Your task to perform on an android device: turn notification dots on Image 0: 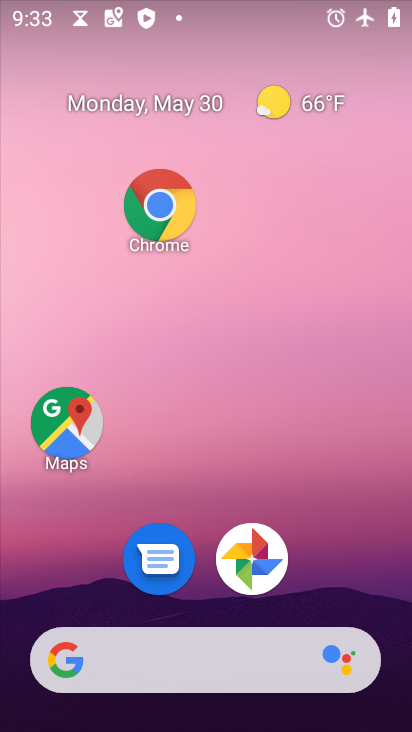
Step 0: drag from (266, 703) to (190, 20)
Your task to perform on an android device: turn notification dots on Image 1: 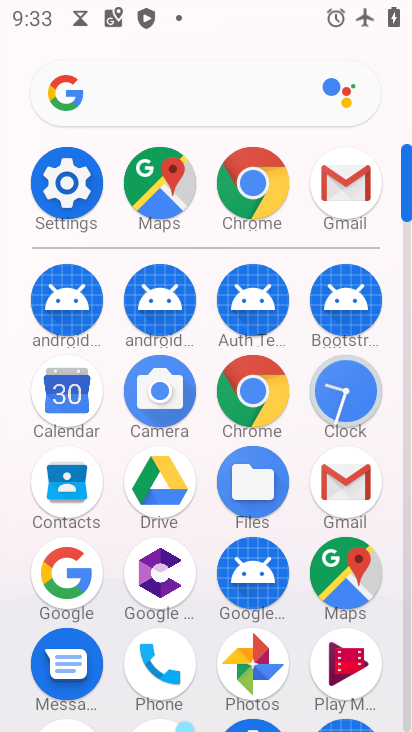
Step 1: click (63, 182)
Your task to perform on an android device: turn notification dots on Image 2: 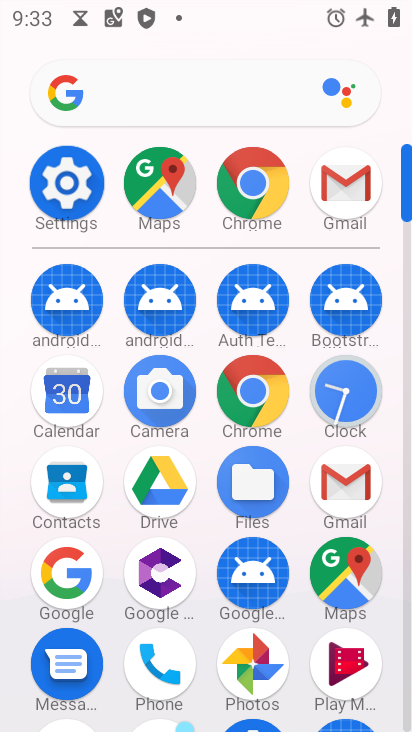
Step 2: click (63, 182)
Your task to perform on an android device: turn notification dots on Image 3: 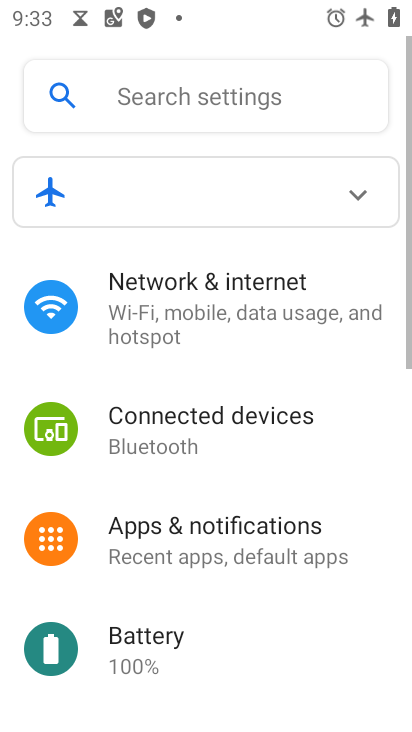
Step 3: click (64, 182)
Your task to perform on an android device: turn notification dots on Image 4: 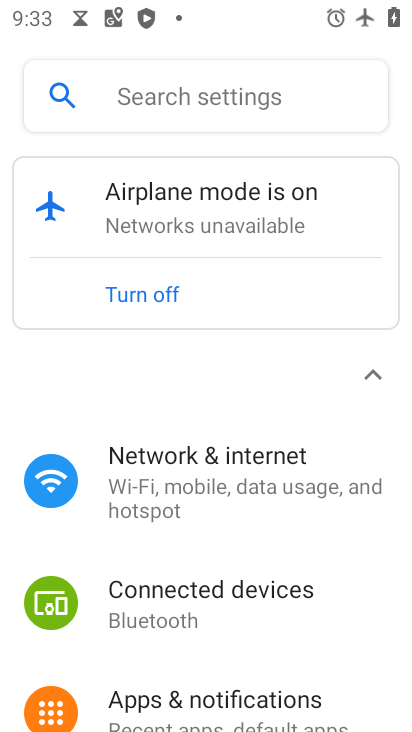
Step 4: drag from (231, 583) to (221, 239)
Your task to perform on an android device: turn notification dots on Image 5: 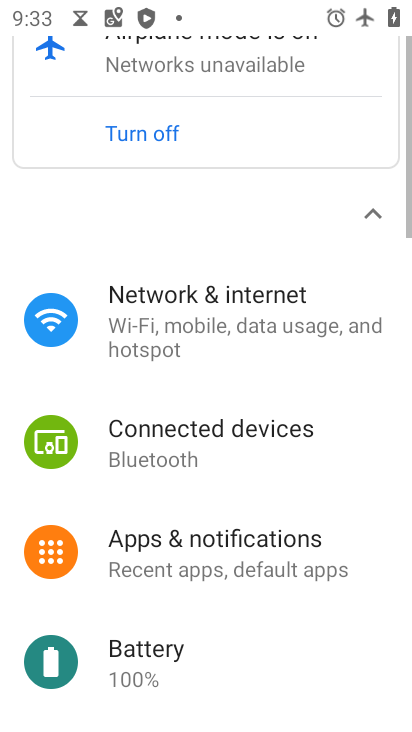
Step 5: drag from (255, 474) to (225, 296)
Your task to perform on an android device: turn notification dots on Image 6: 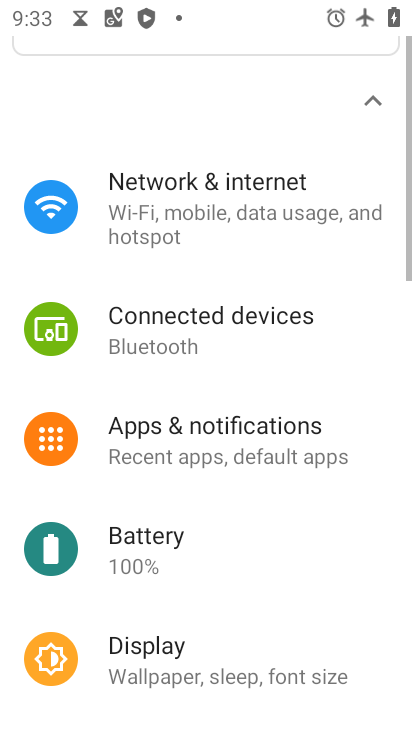
Step 6: drag from (284, 547) to (257, 269)
Your task to perform on an android device: turn notification dots on Image 7: 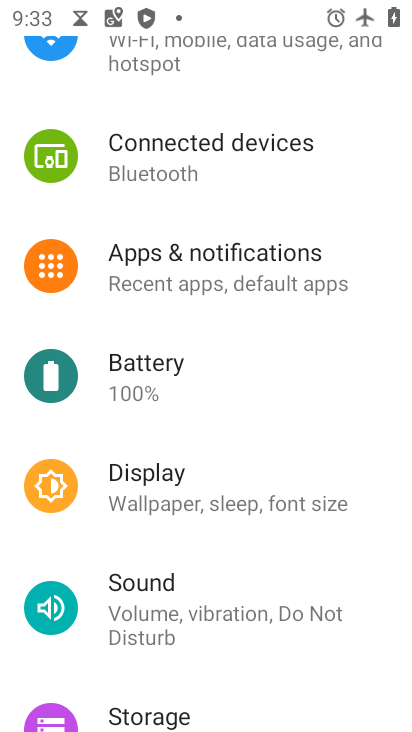
Step 7: click (193, 271)
Your task to perform on an android device: turn notification dots on Image 8: 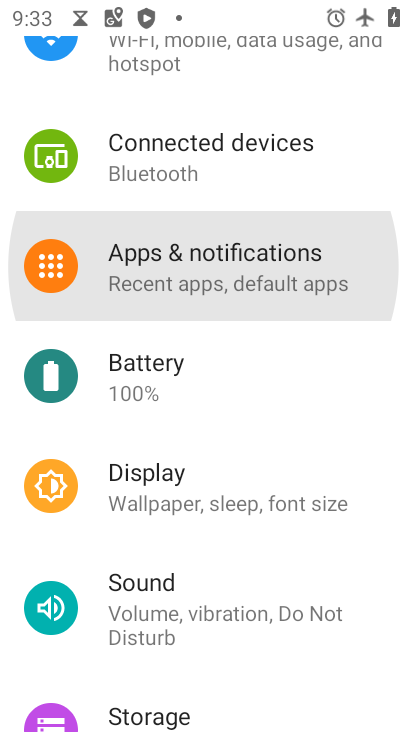
Step 8: click (193, 271)
Your task to perform on an android device: turn notification dots on Image 9: 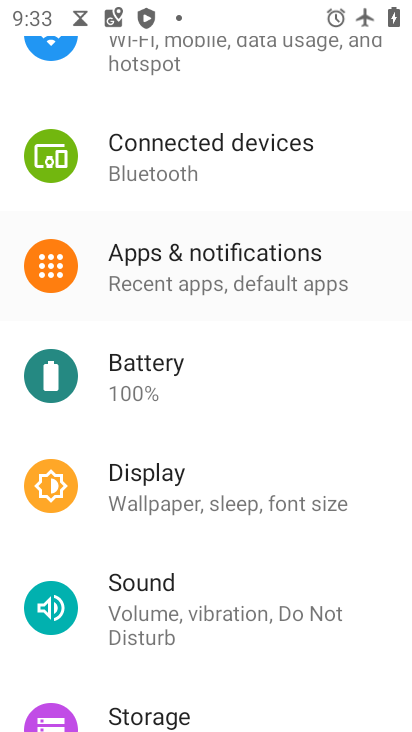
Step 9: click (193, 271)
Your task to perform on an android device: turn notification dots on Image 10: 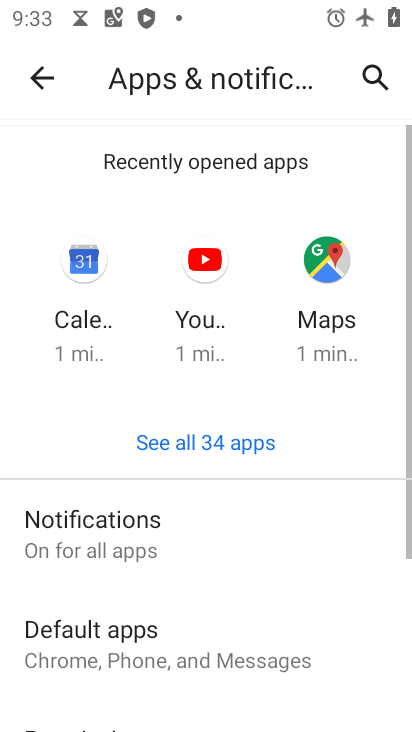
Step 10: drag from (204, 563) to (230, 145)
Your task to perform on an android device: turn notification dots on Image 11: 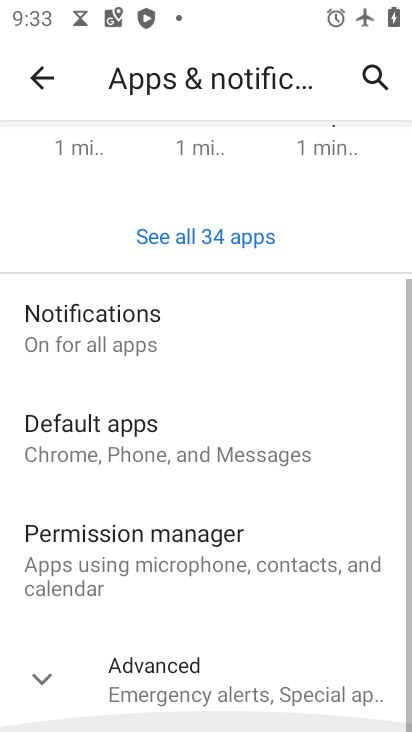
Step 11: drag from (236, 412) to (236, 136)
Your task to perform on an android device: turn notification dots on Image 12: 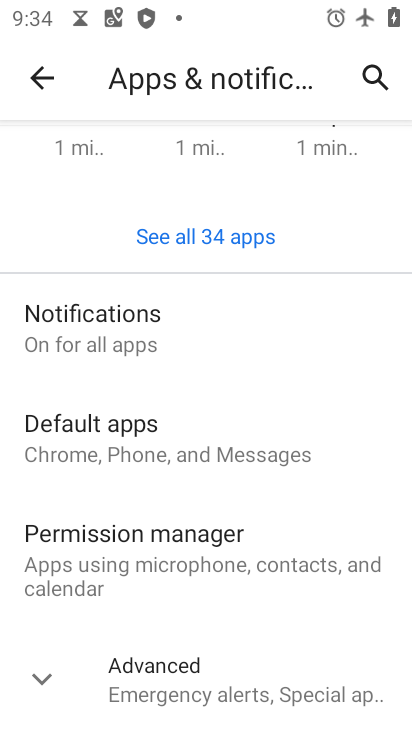
Step 12: click (96, 327)
Your task to perform on an android device: turn notification dots on Image 13: 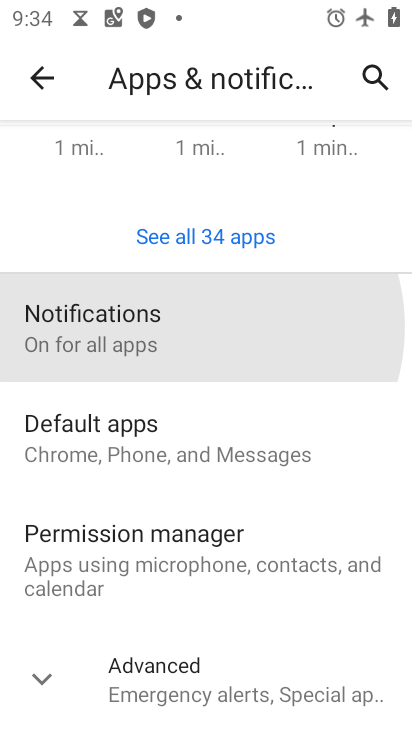
Step 13: click (96, 327)
Your task to perform on an android device: turn notification dots on Image 14: 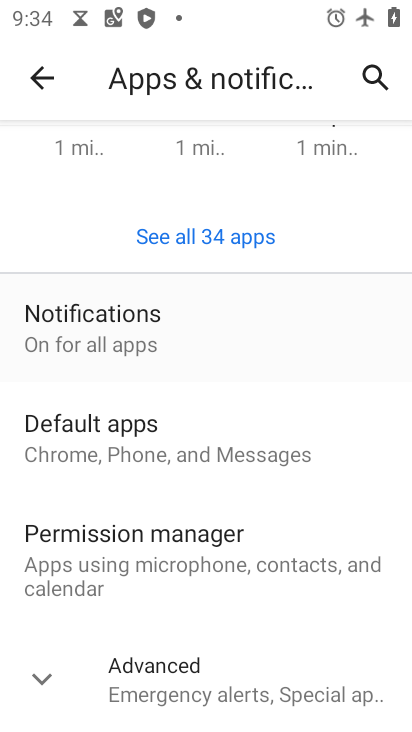
Step 14: click (96, 327)
Your task to perform on an android device: turn notification dots on Image 15: 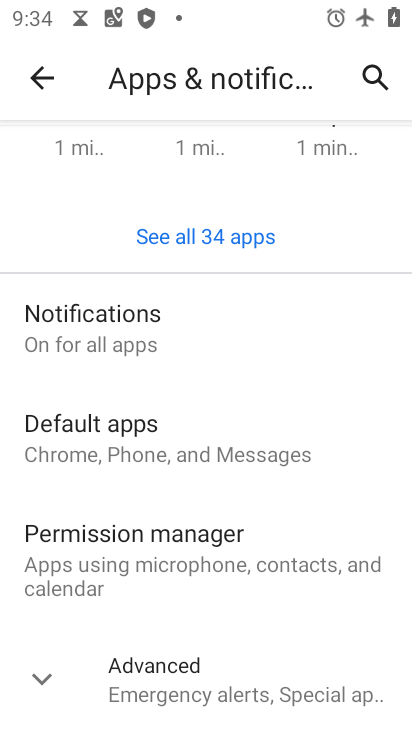
Step 15: click (96, 327)
Your task to perform on an android device: turn notification dots on Image 16: 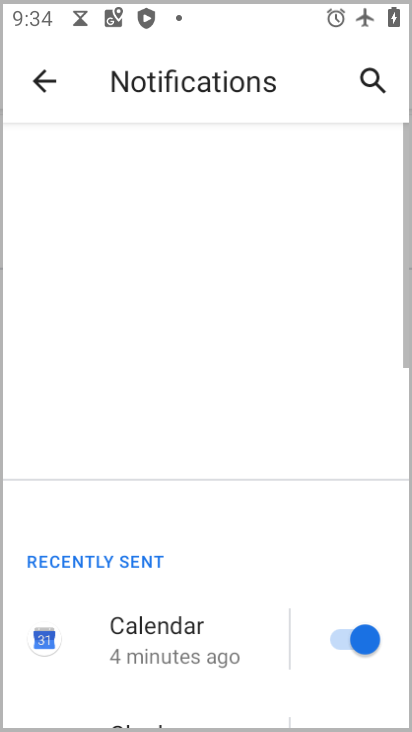
Step 16: click (103, 327)
Your task to perform on an android device: turn notification dots on Image 17: 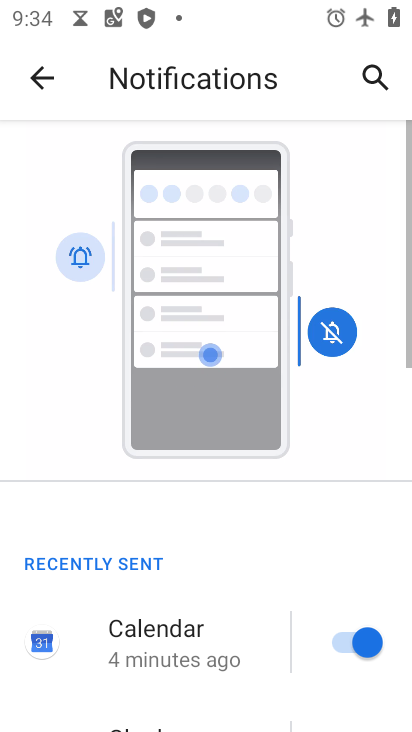
Step 17: drag from (219, 536) to (193, 109)
Your task to perform on an android device: turn notification dots on Image 18: 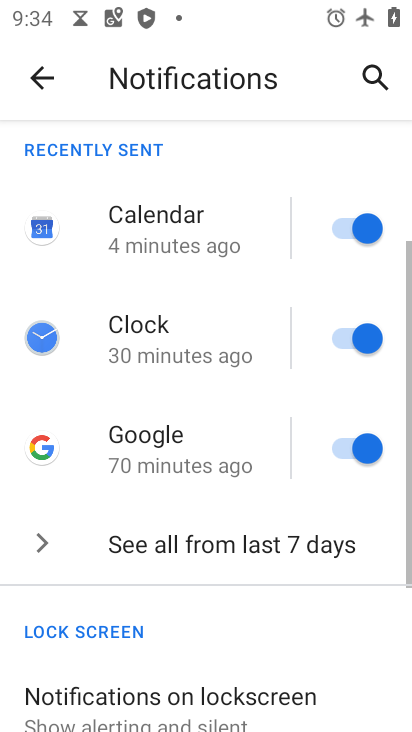
Step 18: drag from (217, 444) to (187, 80)
Your task to perform on an android device: turn notification dots on Image 19: 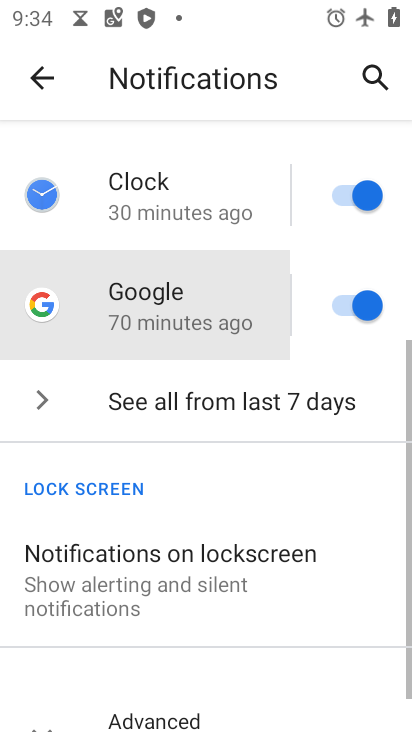
Step 19: drag from (231, 499) to (186, 116)
Your task to perform on an android device: turn notification dots on Image 20: 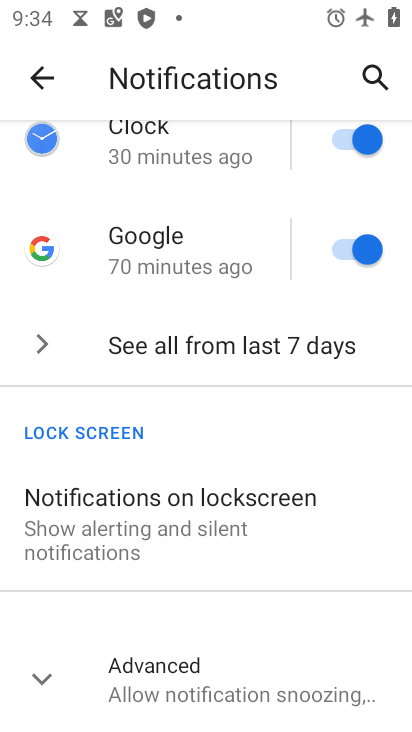
Step 20: click (156, 685)
Your task to perform on an android device: turn notification dots on Image 21: 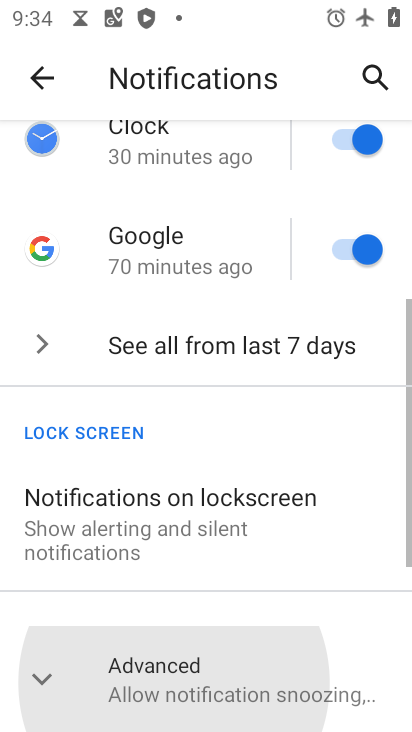
Step 21: click (156, 685)
Your task to perform on an android device: turn notification dots on Image 22: 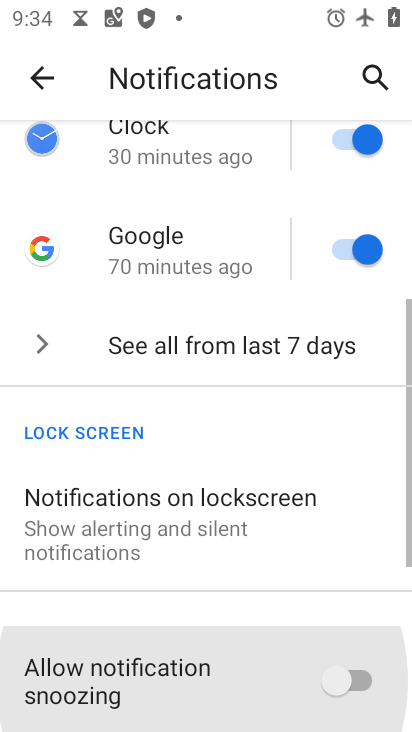
Step 22: click (155, 685)
Your task to perform on an android device: turn notification dots on Image 23: 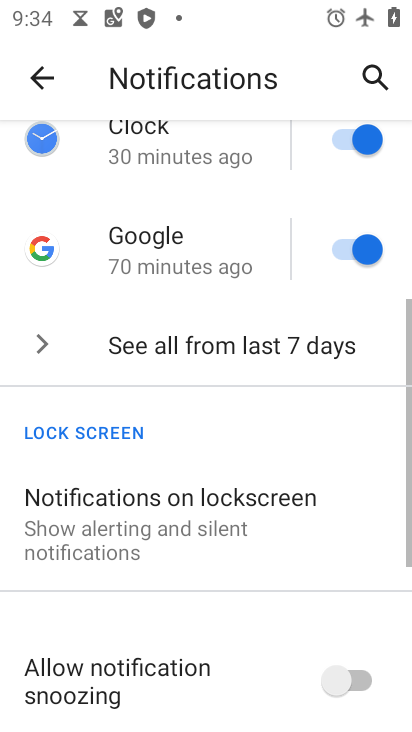
Step 23: drag from (269, 710) to (231, 229)
Your task to perform on an android device: turn notification dots on Image 24: 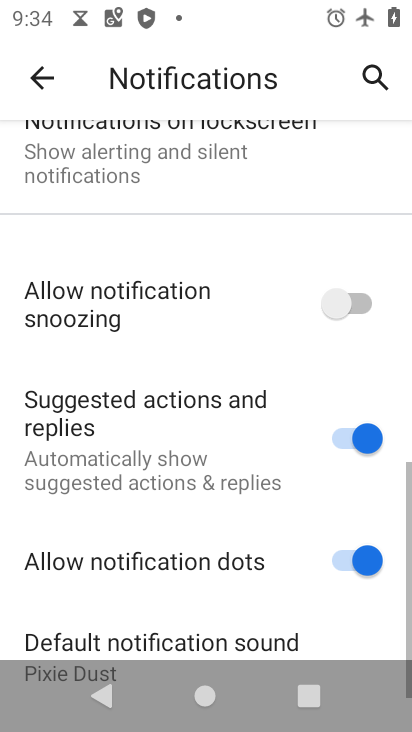
Step 24: drag from (191, 390) to (164, 213)
Your task to perform on an android device: turn notification dots on Image 25: 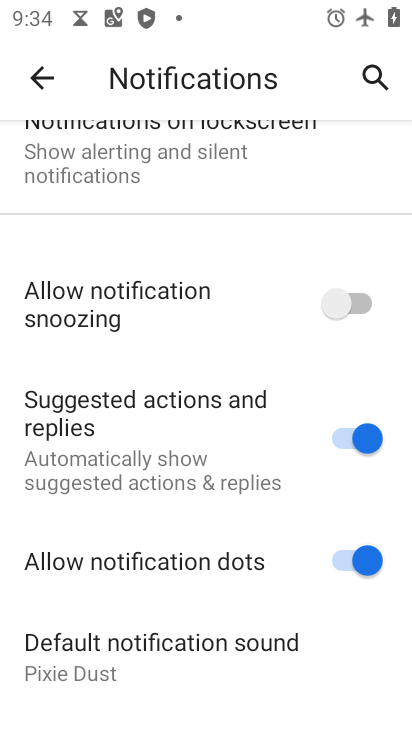
Step 25: click (373, 562)
Your task to perform on an android device: turn notification dots on Image 26: 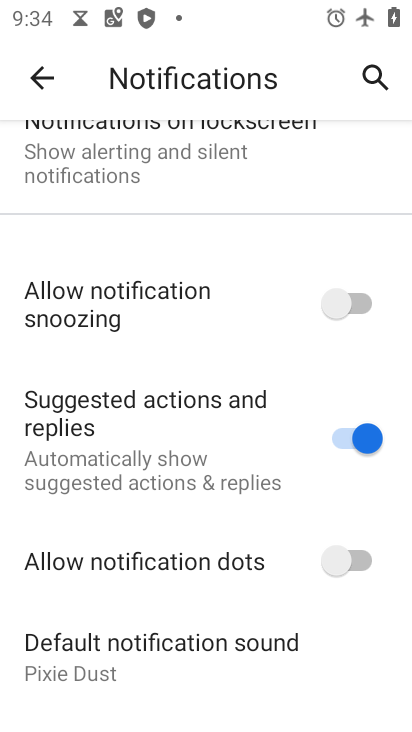
Step 26: click (336, 561)
Your task to perform on an android device: turn notification dots on Image 27: 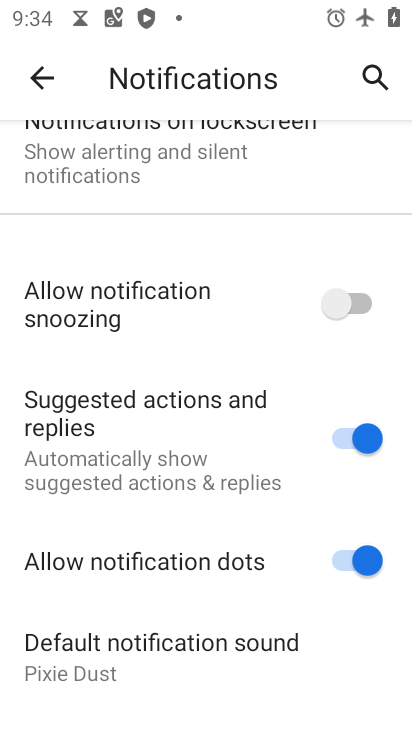
Step 27: task complete